Your task to perform on an android device: change notifications settings Image 0: 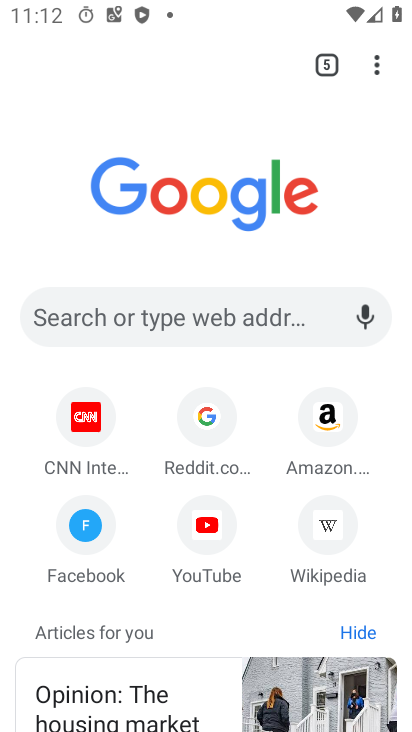
Step 0: press home button
Your task to perform on an android device: change notifications settings Image 1: 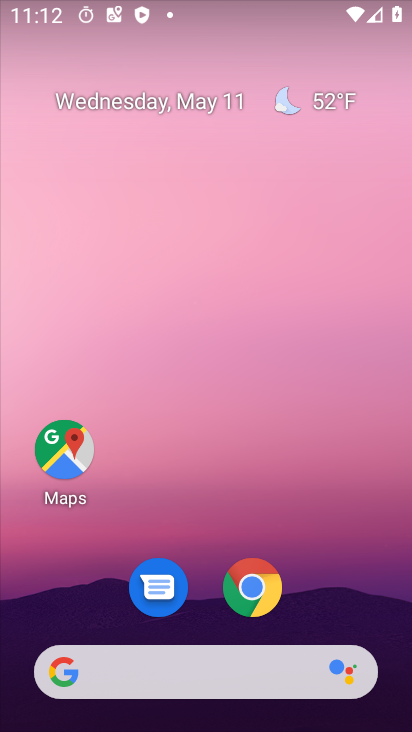
Step 1: drag from (204, 710) to (211, 165)
Your task to perform on an android device: change notifications settings Image 2: 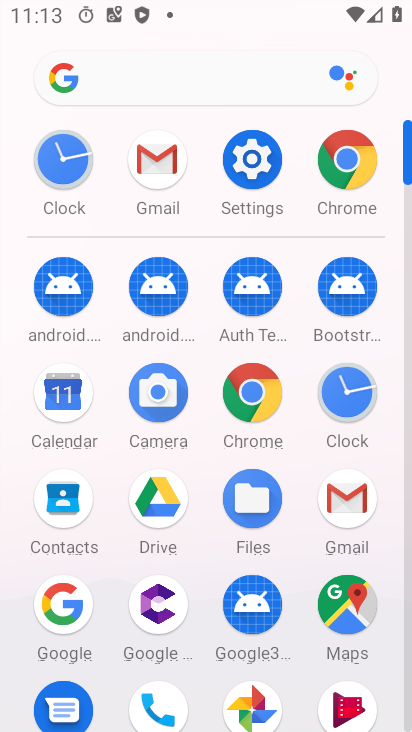
Step 2: click (243, 178)
Your task to perform on an android device: change notifications settings Image 3: 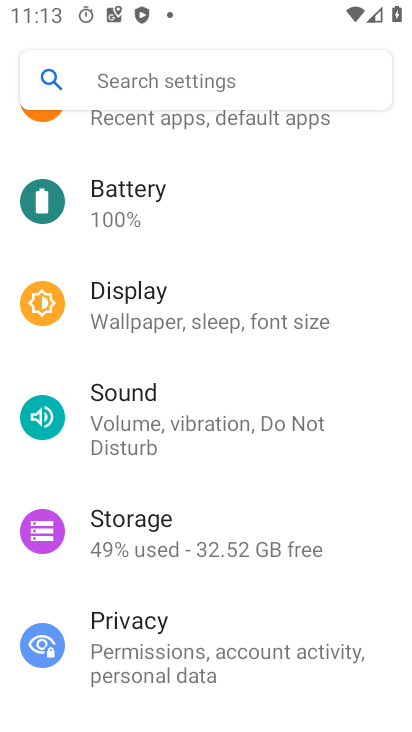
Step 3: click (187, 89)
Your task to perform on an android device: change notifications settings Image 4: 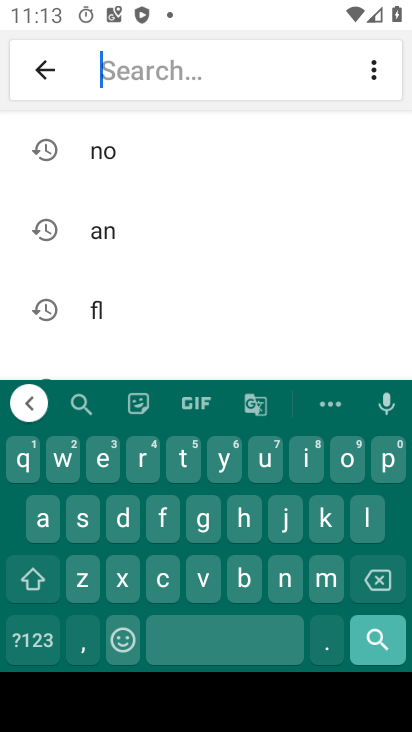
Step 4: click (150, 169)
Your task to perform on an android device: change notifications settings Image 5: 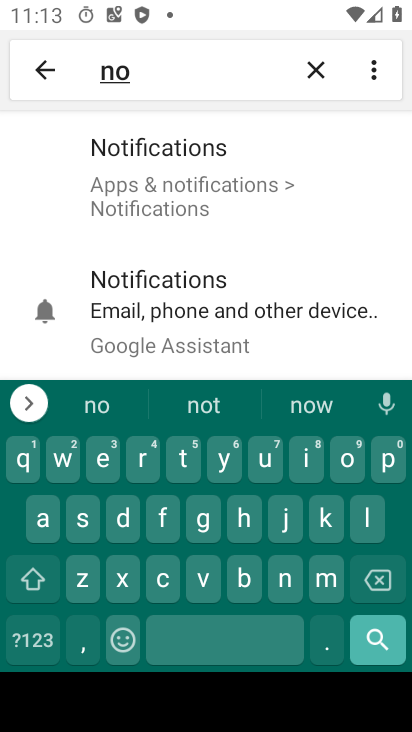
Step 5: click (148, 184)
Your task to perform on an android device: change notifications settings Image 6: 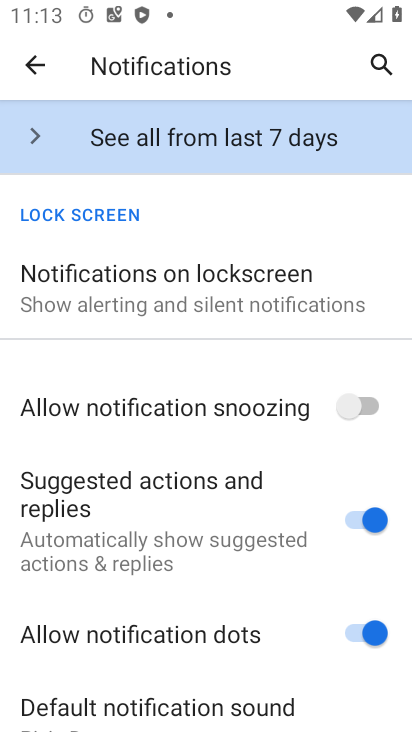
Step 6: click (169, 281)
Your task to perform on an android device: change notifications settings Image 7: 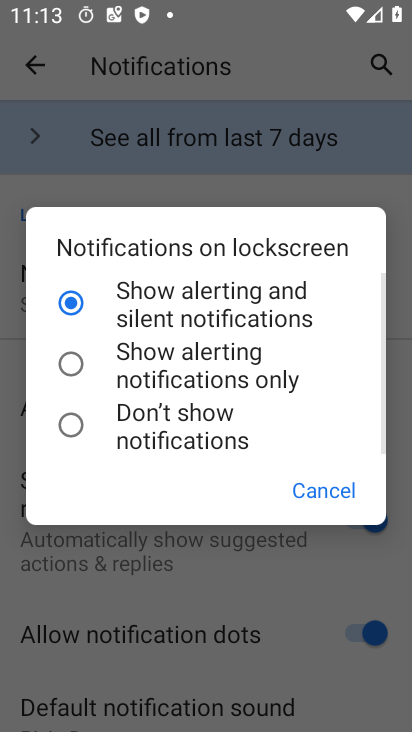
Step 7: click (115, 360)
Your task to perform on an android device: change notifications settings Image 8: 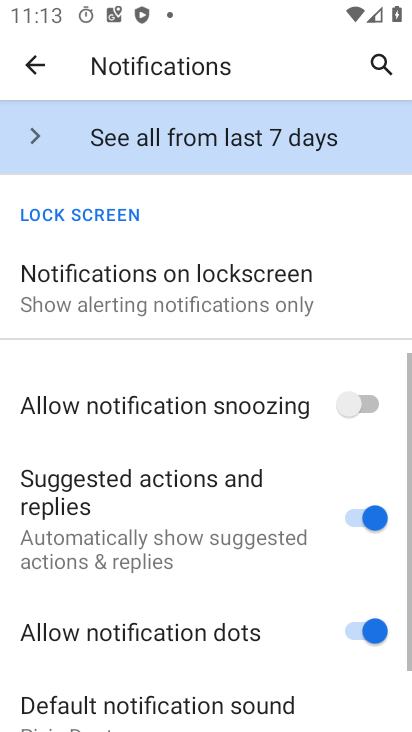
Step 8: task complete